Your task to perform on an android device: Open my contact list Image 0: 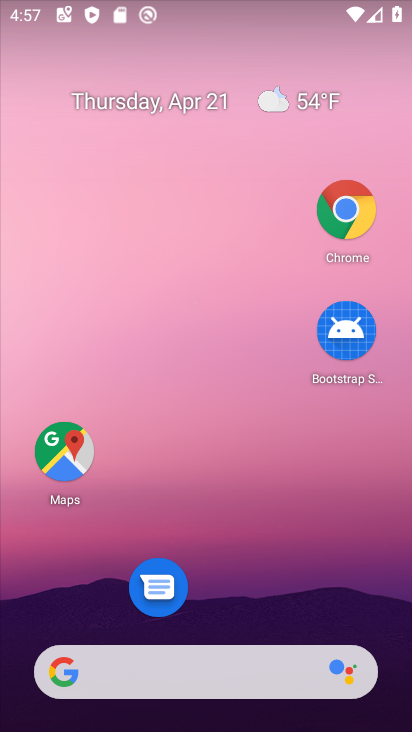
Step 0: drag from (283, 606) to (302, 88)
Your task to perform on an android device: Open my contact list Image 1: 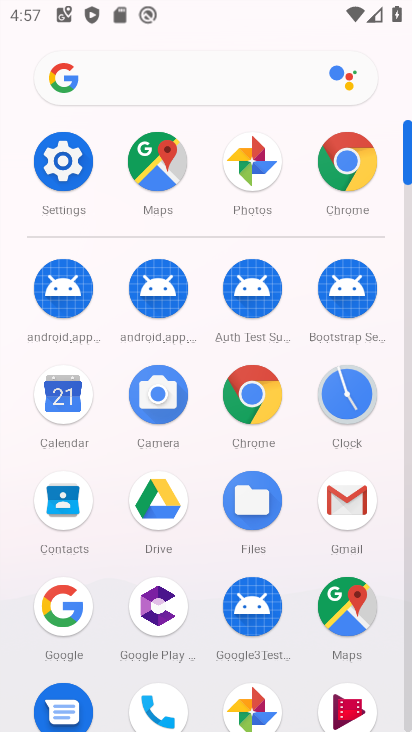
Step 1: drag from (207, 259) to (233, 2)
Your task to perform on an android device: Open my contact list Image 2: 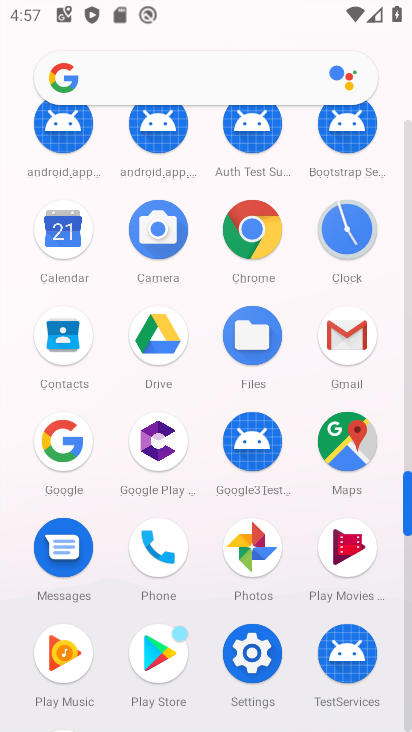
Step 2: click (61, 334)
Your task to perform on an android device: Open my contact list Image 3: 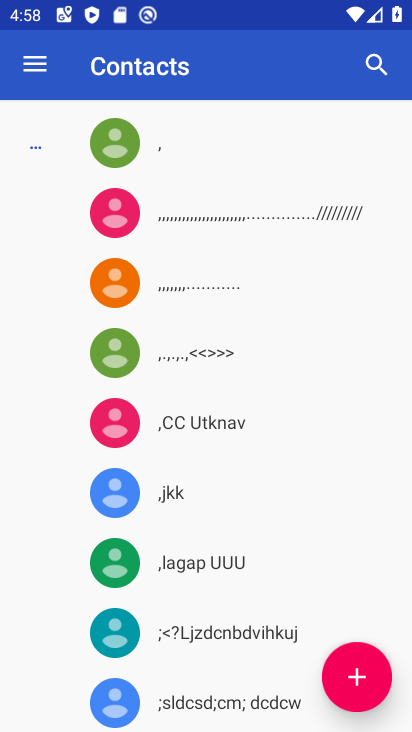
Step 3: drag from (332, 444) to (332, 285)
Your task to perform on an android device: Open my contact list Image 4: 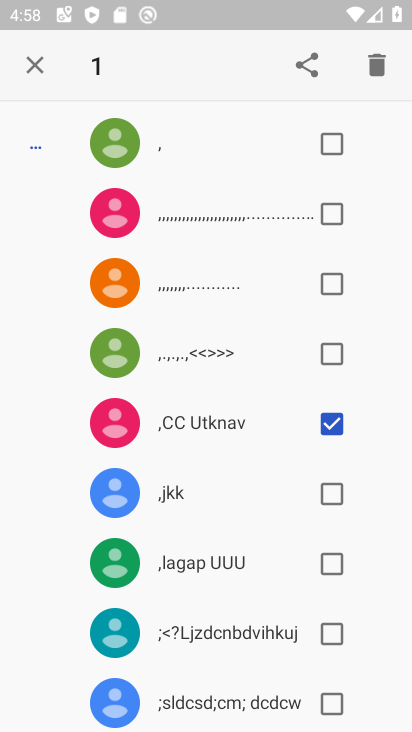
Step 4: click (44, 205)
Your task to perform on an android device: Open my contact list Image 5: 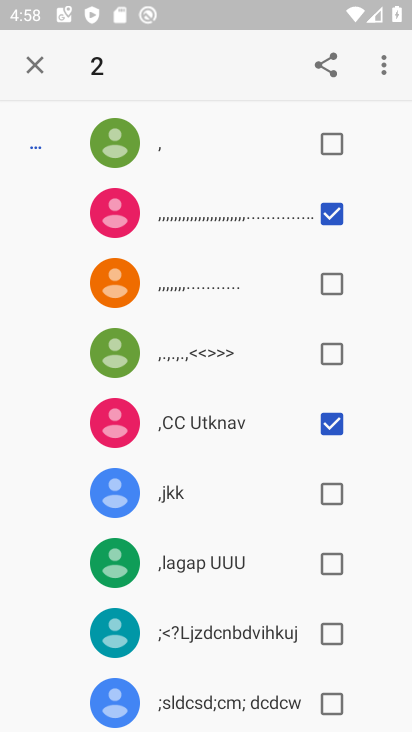
Step 5: click (31, 67)
Your task to perform on an android device: Open my contact list Image 6: 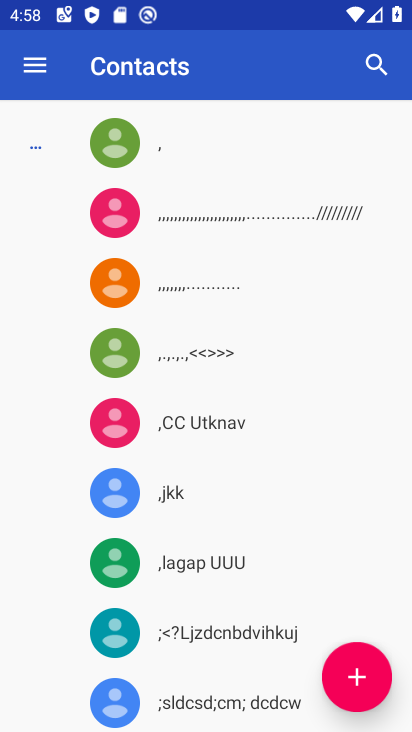
Step 6: task complete